Your task to perform on an android device: Open Chrome and go to the settings page Image 0: 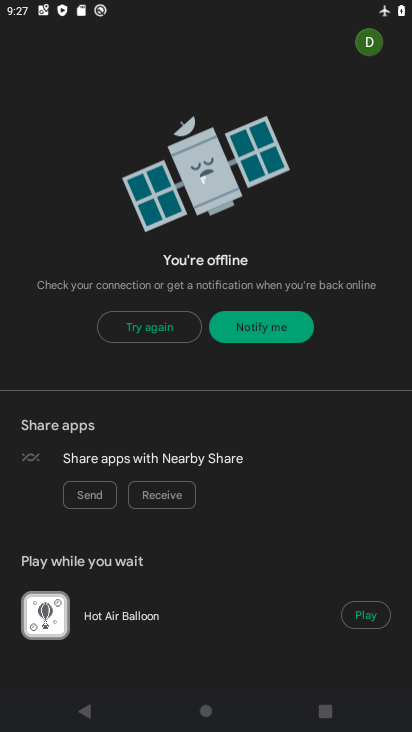
Step 0: press home button
Your task to perform on an android device: Open Chrome and go to the settings page Image 1: 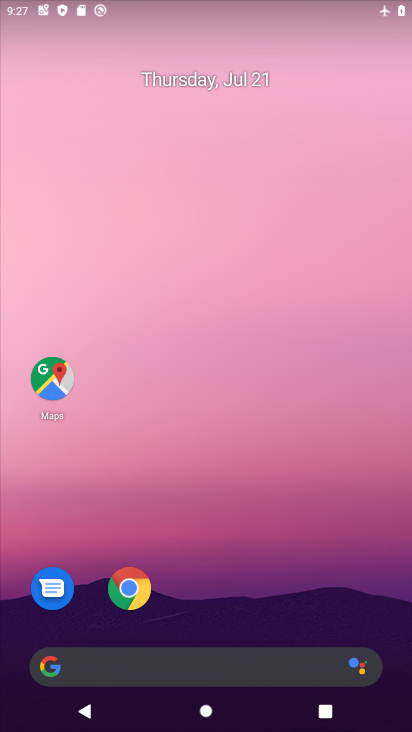
Step 1: click (130, 593)
Your task to perform on an android device: Open Chrome and go to the settings page Image 2: 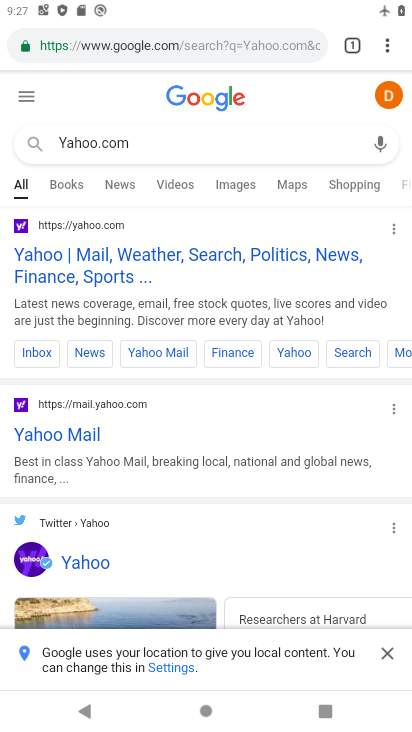
Step 2: click (389, 44)
Your task to perform on an android device: Open Chrome and go to the settings page Image 3: 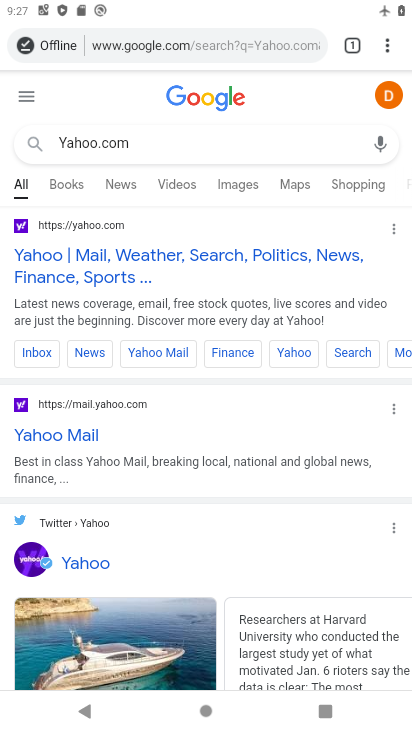
Step 3: click (383, 37)
Your task to perform on an android device: Open Chrome and go to the settings page Image 4: 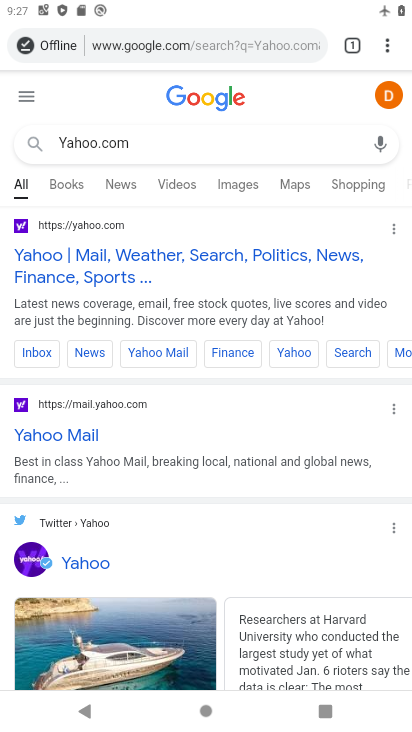
Step 4: drag from (193, 618) to (166, 445)
Your task to perform on an android device: Open Chrome and go to the settings page Image 5: 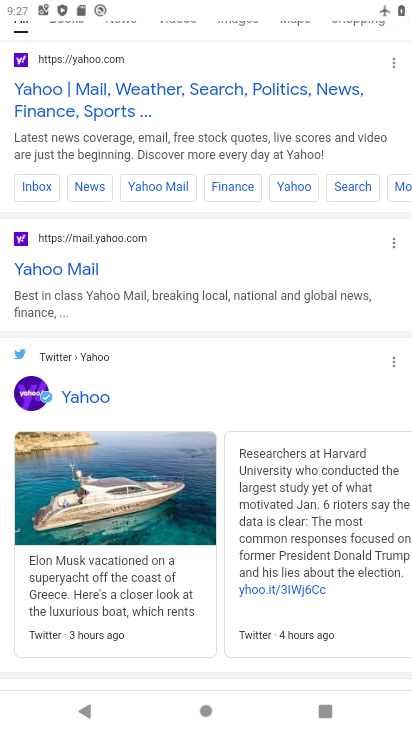
Step 5: click (391, 58)
Your task to perform on an android device: Open Chrome and go to the settings page Image 6: 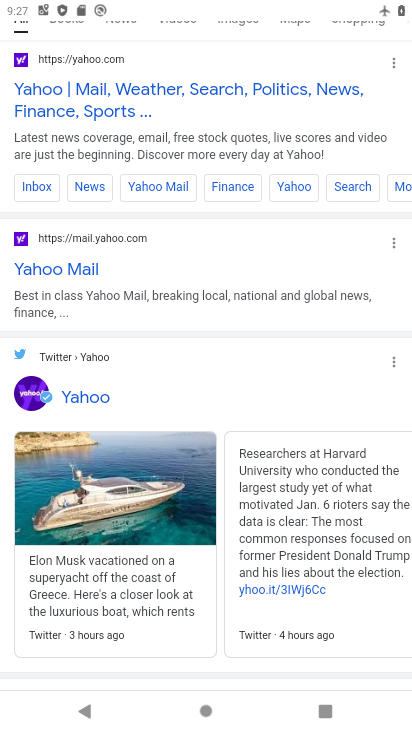
Step 6: click (395, 66)
Your task to perform on an android device: Open Chrome and go to the settings page Image 7: 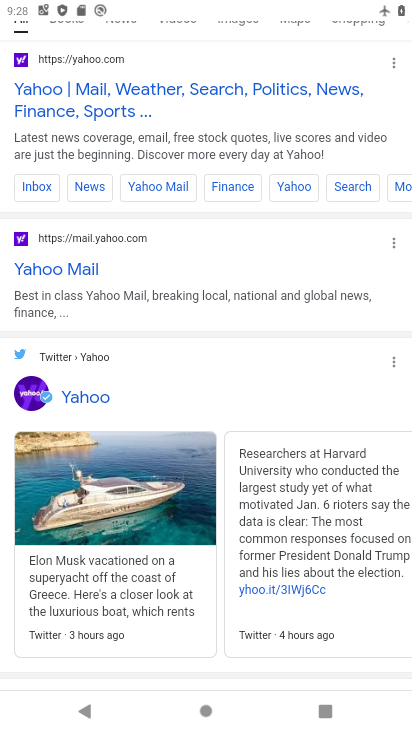
Step 7: task complete